Your task to perform on an android device: turn pop-ups off in chrome Image 0: 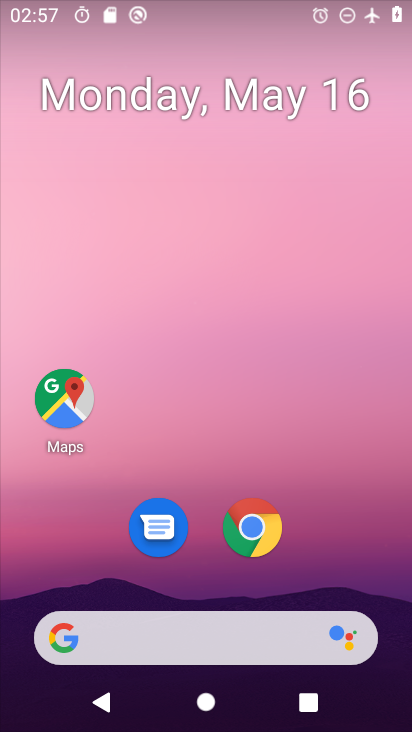
Step 0: press home button
Your task to perform on an android device: turn pop-ups off in chrome Image 1: 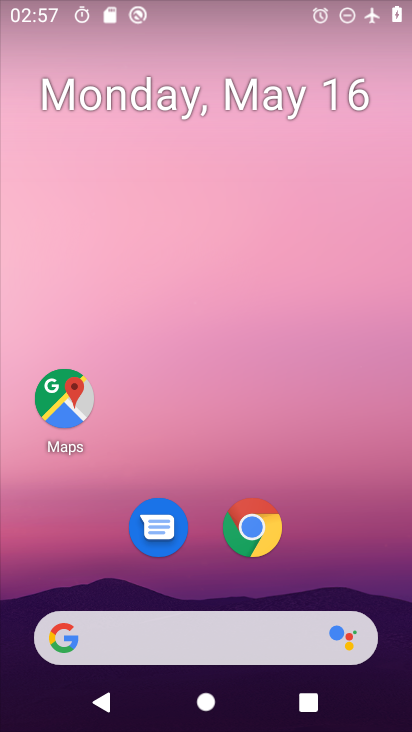
Step 1: drag from (165, 638) to (273, 213)
Your task to perform on an android device: turn pop-ups off in chrome Image 2: 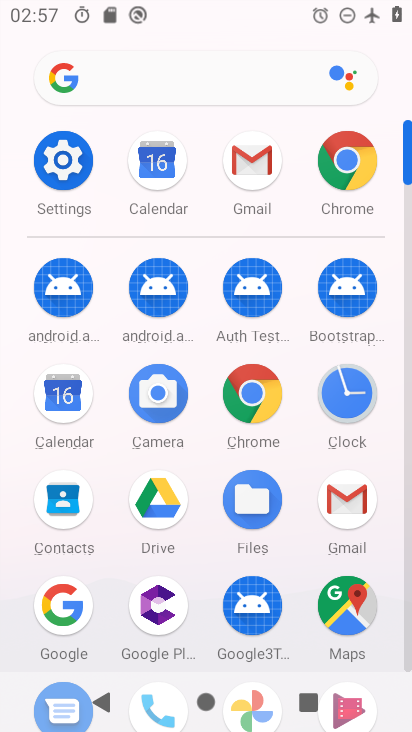
Step 2: click (341, 159)
Your task to perform on an android device: turn pop-ups off in chrome Image 3: 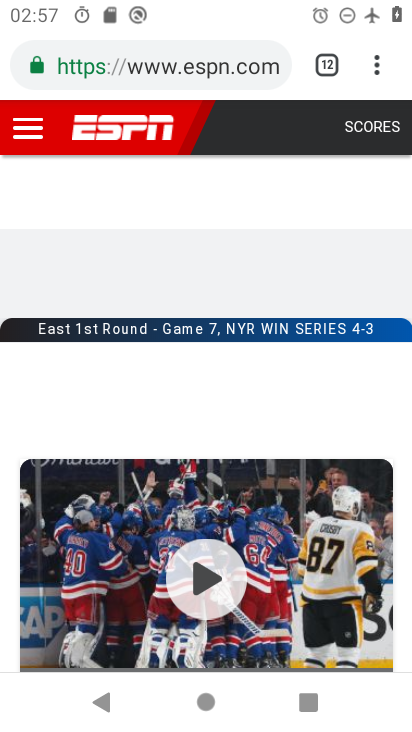
Step 3: drag from (376, 71) to (220, 589)
Your task to perform on an android device: turn pop-ups off in chrome Image 4: 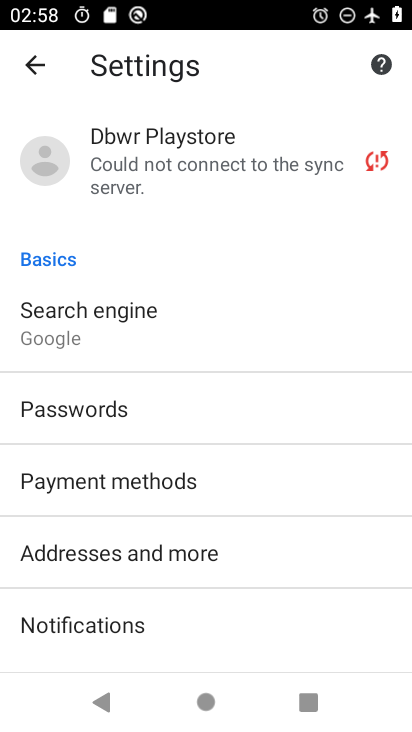
Step 4: drag from (171, 634) to (311, 216)
Your task to perform on an android device: turn pop-ups off in chrome Image 5: 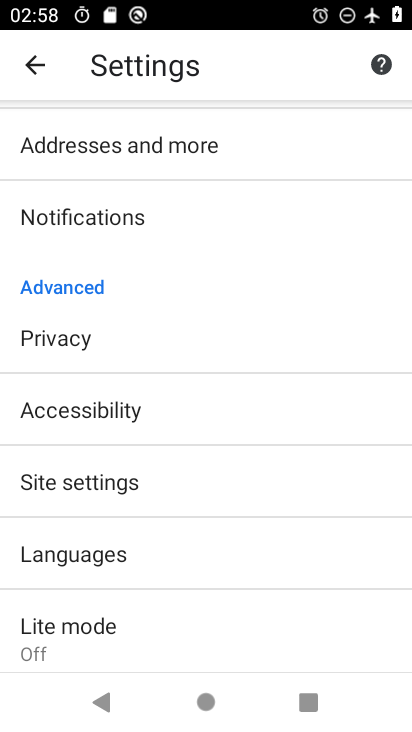
Step 5: click (99, 487)
Your task to perform on an android device: turn pop-ups off in chrome Image 6: 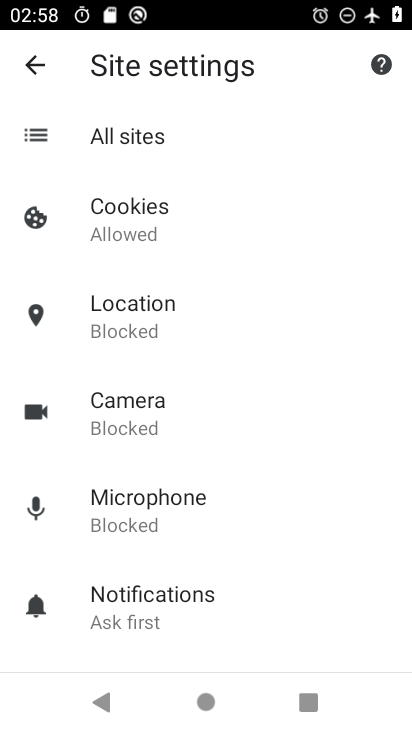
Step 6: drag from (217, 610) to (358, 156)
Your task to perform on an android device: turn pop-ups off in chrome Image 7: 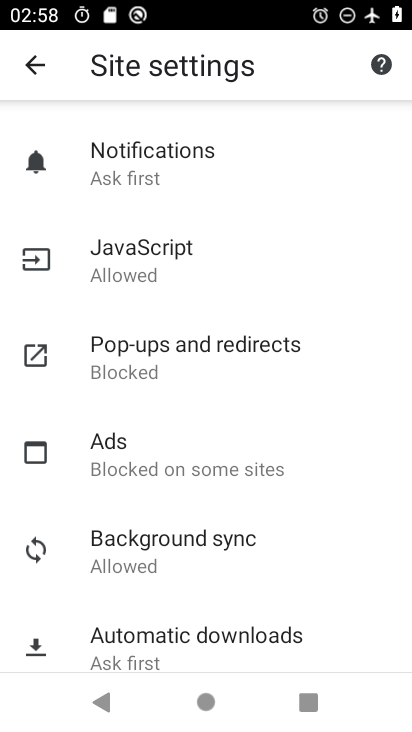
Step 7: click (149, 371)
Your task to perform on an android device: turn pop-ups off in chrome Image 8: 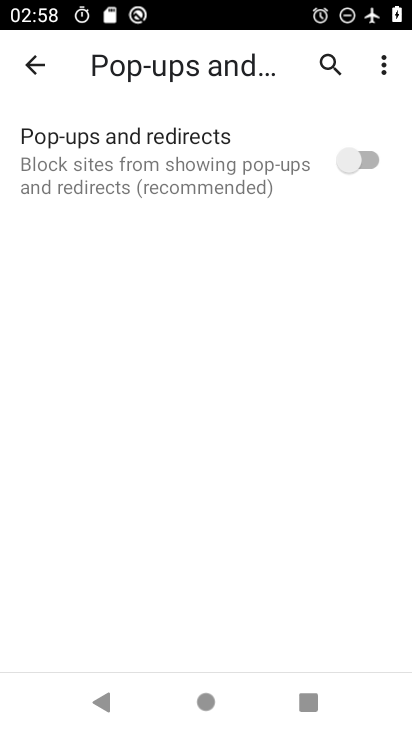
Step 8: task complete